Your task to perform on an android device: turn on priority inbox in the gmail app Image 0: 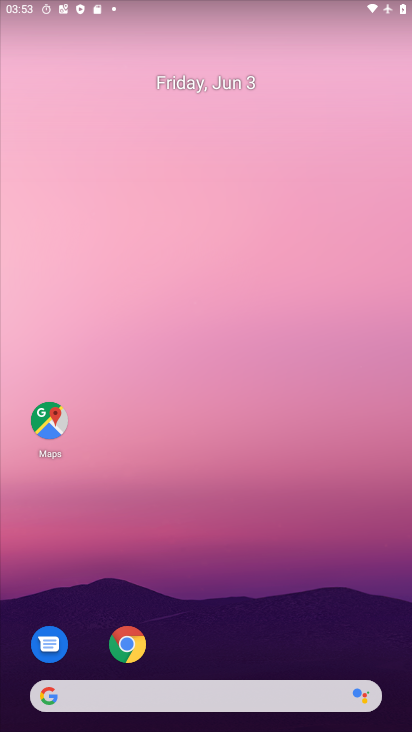
Step 0: drag from (224, 561) to (227, 196)
Your task to perform on an android device: turn on priority inbox in the gmail app Image 1: 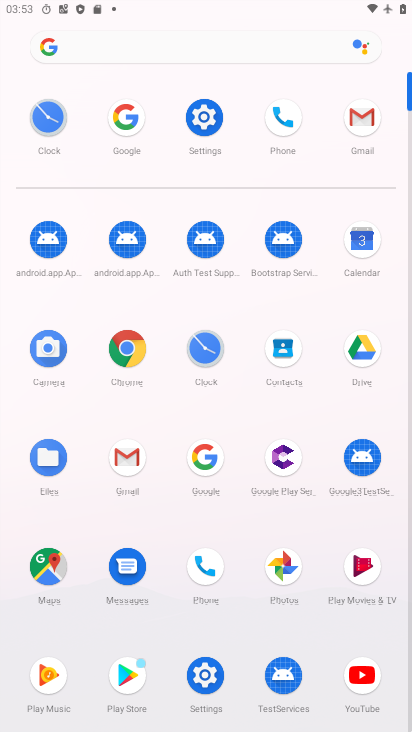
Step 1: click (365, 129)
Your task to perform on an android device: turn on priority inbox in the gmail app Image 2: 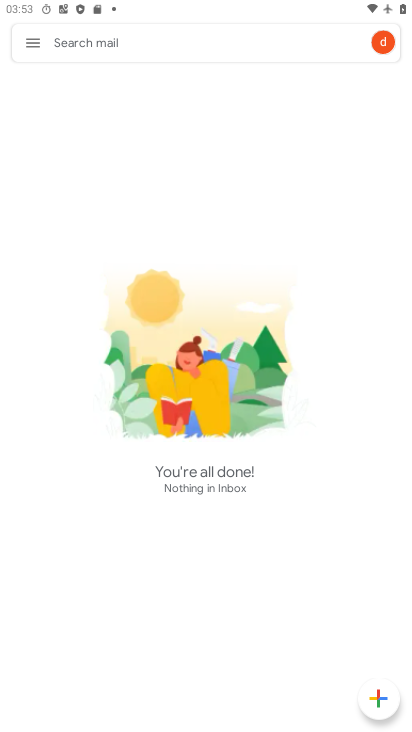
Step 2: click (30, 43)
Your task to perform on an android device: turn on priority inbox in the gmail app Image 3: 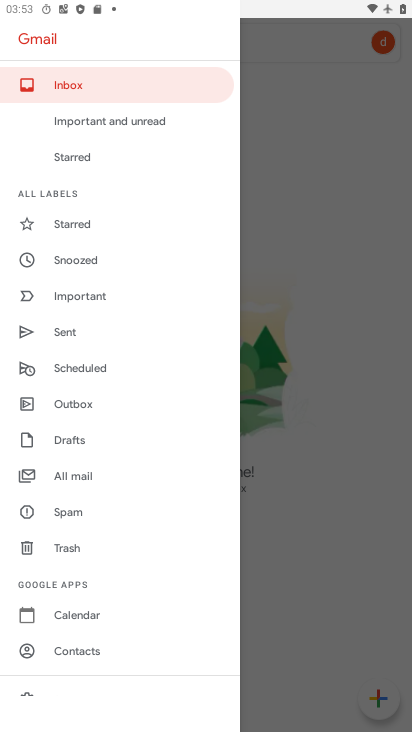
Step 3: drag from (107, 635) to (100, 280)
Your task to perform on an android device: turn on priority inbox in the gmail app Image 4: 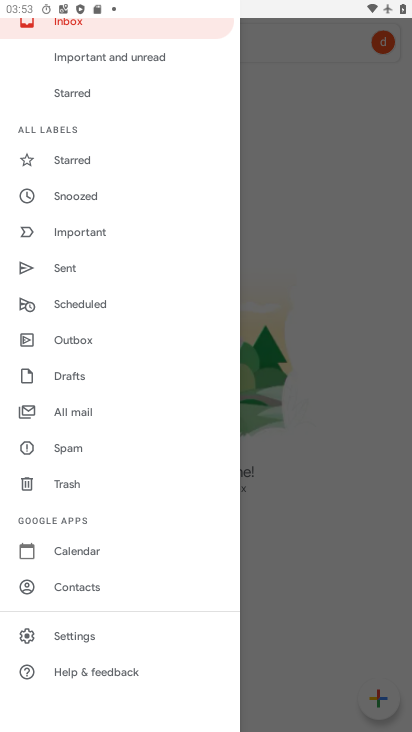
Step 4: click (68, 625)
Your task to perform on an android device: turn on priority inbox in the gmail app Image 5: 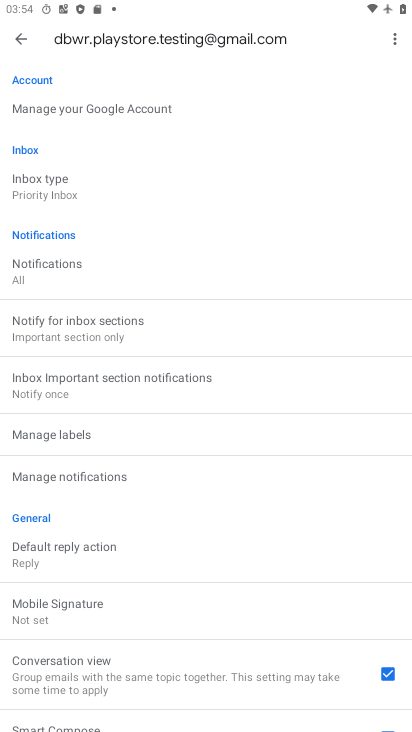
Step 5: click (91, 196)
Your task to perform on an android device: turn on priority inbox in the gmail app Image 6: 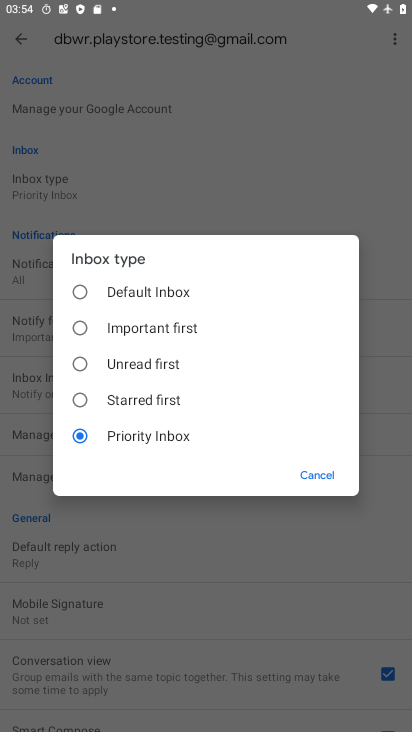
Step 6: task complete